Your task to perform on an android device: Open the Play Movies app and select the watchlist tab. Image 0: 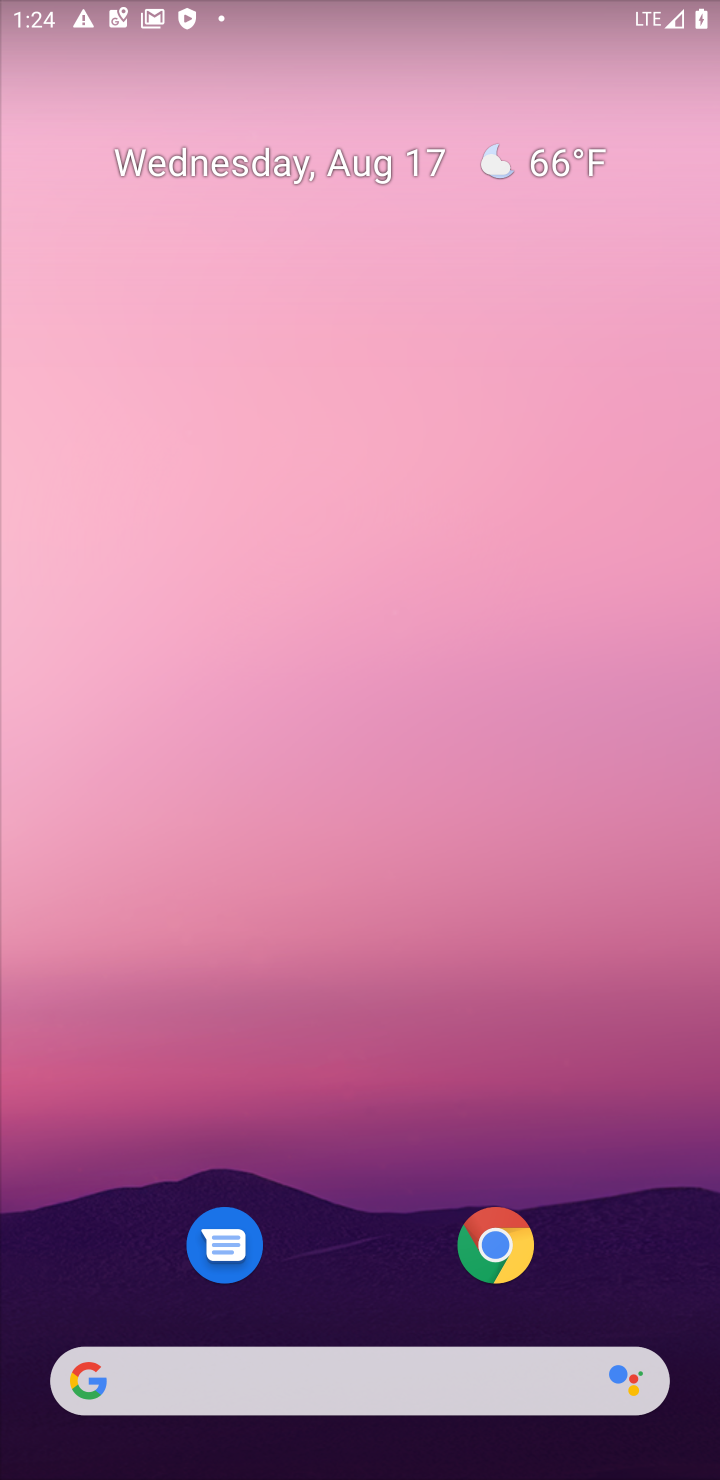
Step 0: drag from (352, 1185) to (352, 105)
Your task to perform on an android device: Open the Play Movies app and select the watchlist tab. Image 1: 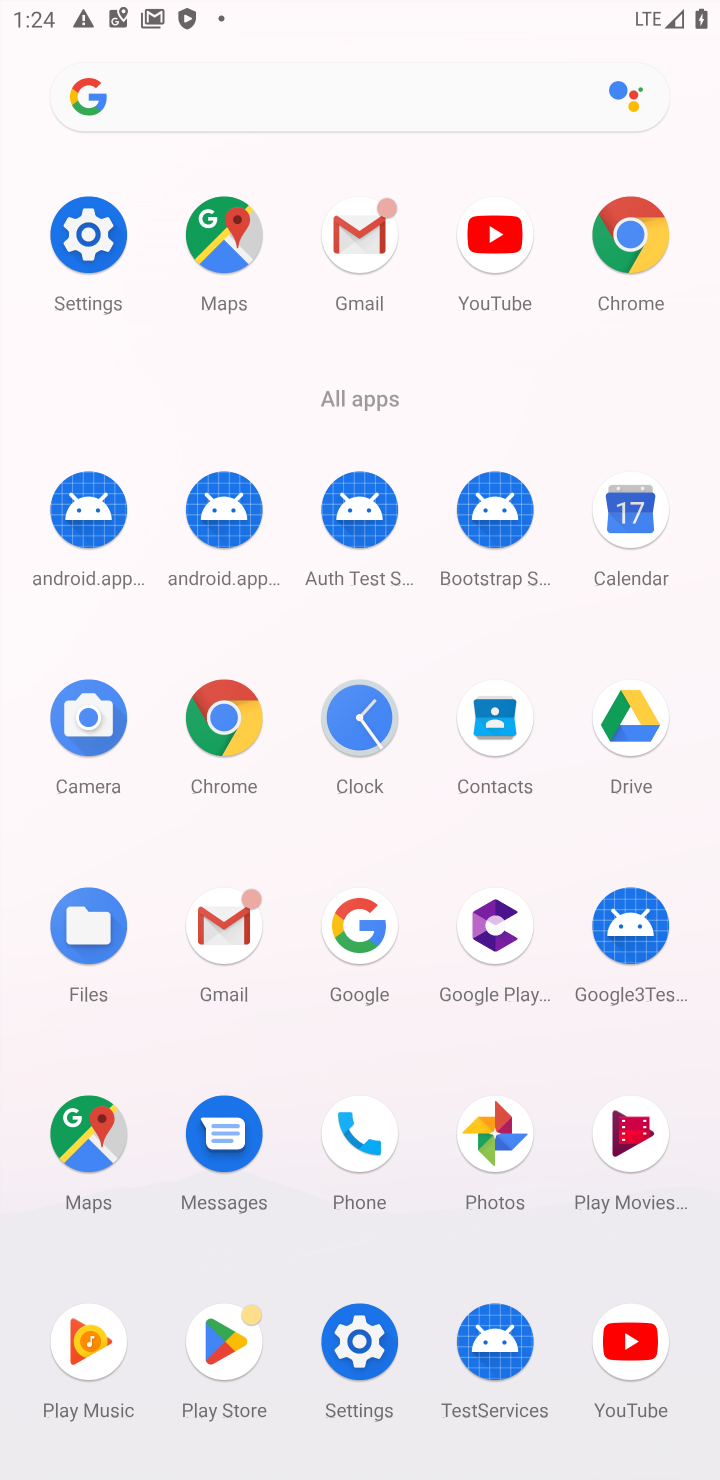
Step 1: click (629, 1125)
Your task to perform on an android device: Open the Play Movies app and select the watchlist tab. Image 2: 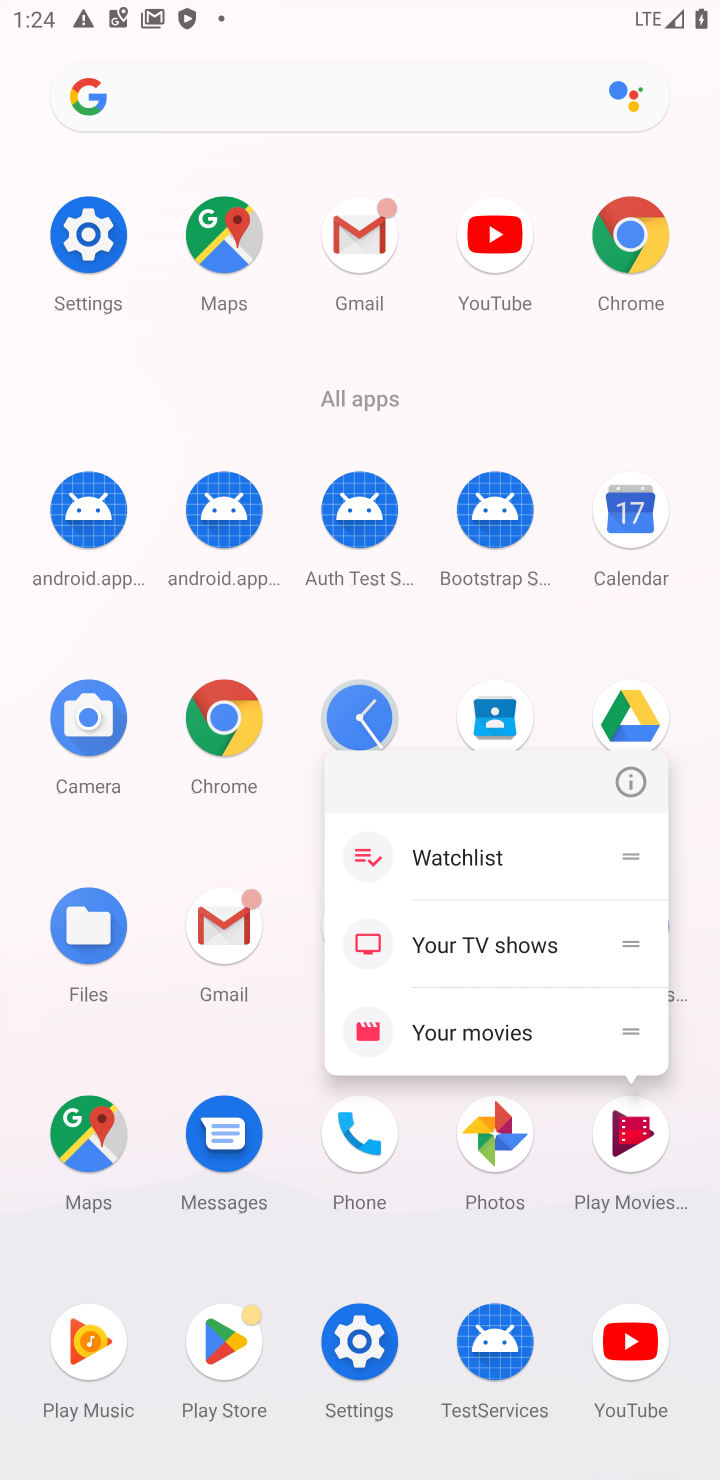
Step 2: click (619, 1123)
Your task to perform on an android device: Open the Play Movies app and select the watchlist tab. Image 3: 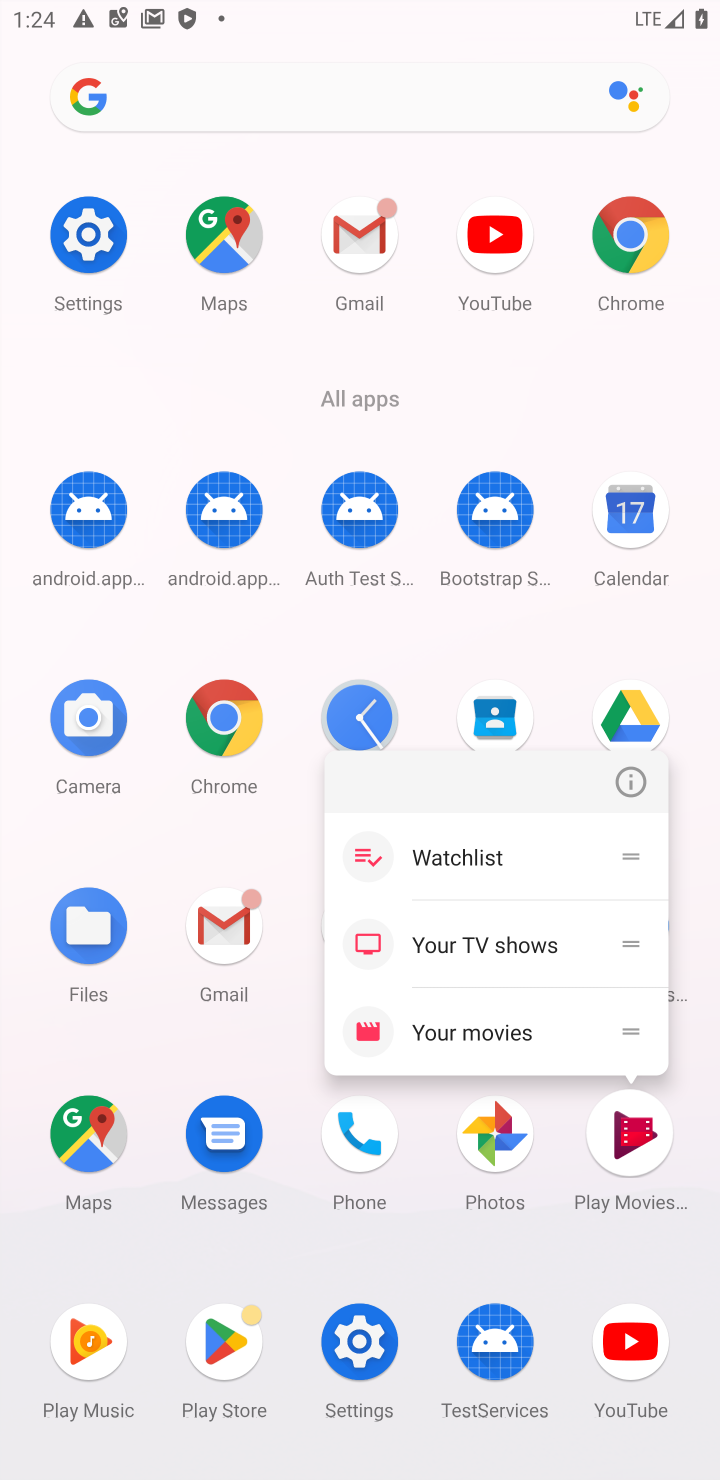
Step 3: click (615, 1120)
Your task to perform on an android device: Open the Play Movies app and select the watchlist tab. Image 4: 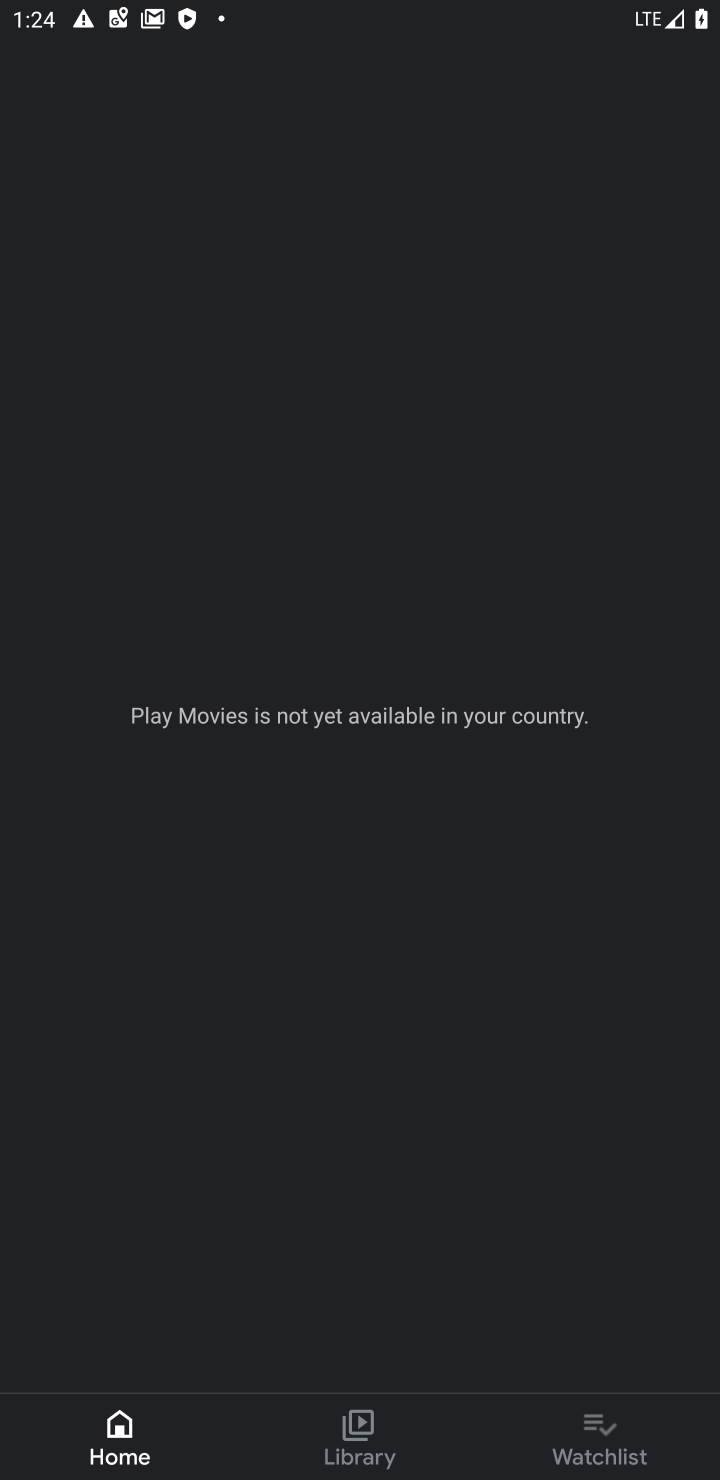
Step 4: click (587, 1427)
Your task to perform on an android device: Open the Play Movies app and select the watchlist tab. Image 5: 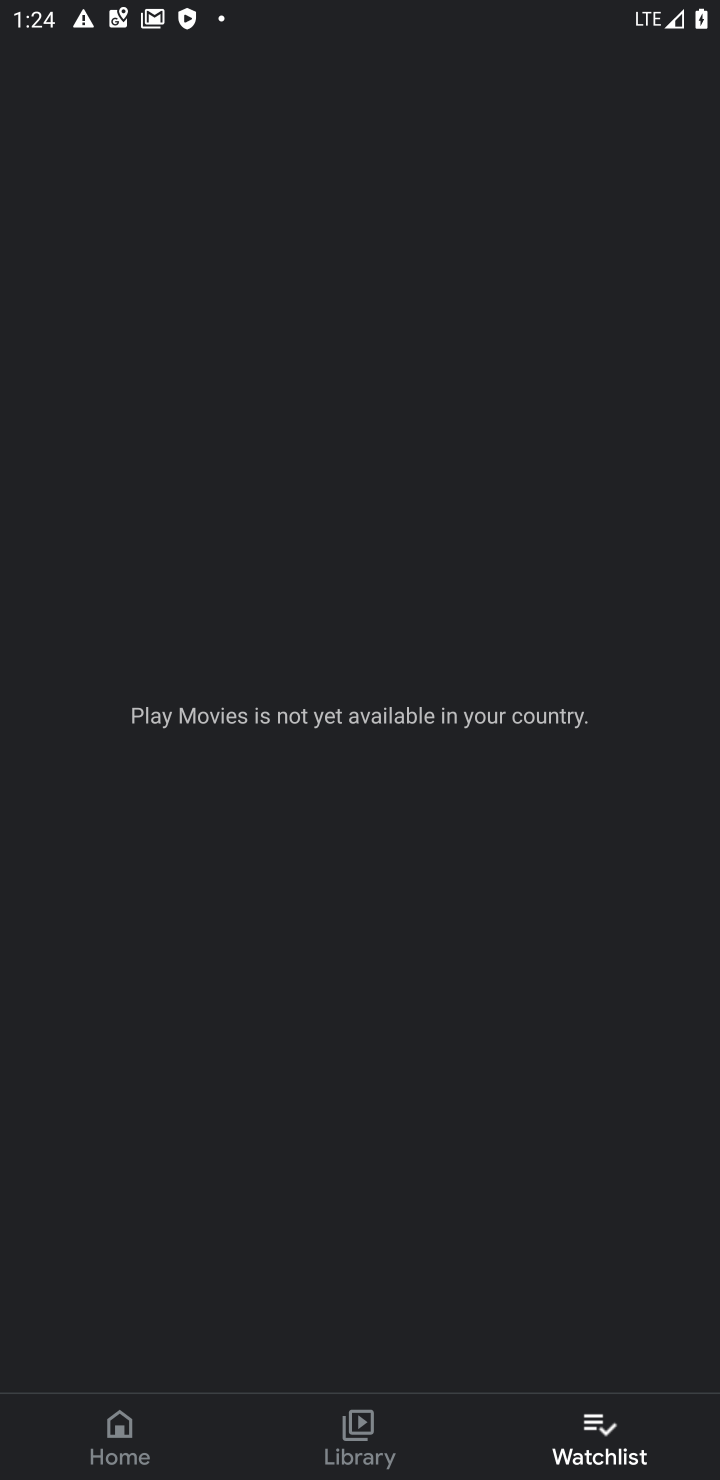
Step 5: task complete